Your task to perform on an android device: turn off data saver in the chrome app Image 0: 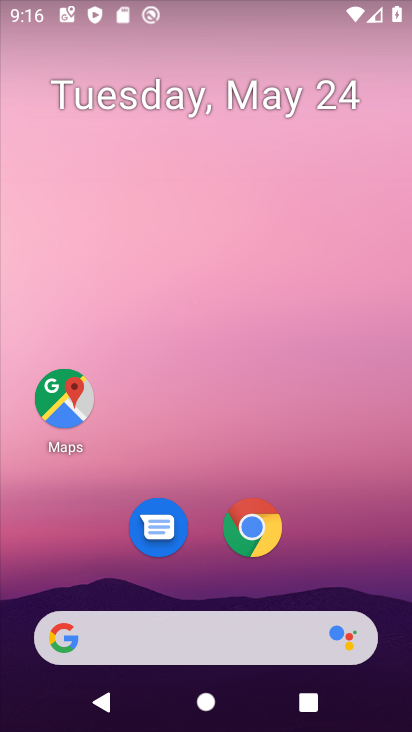
Step 0: click (245, 524)
Your task to perform on an android device: turn off data saver in the chrome app Image 1: 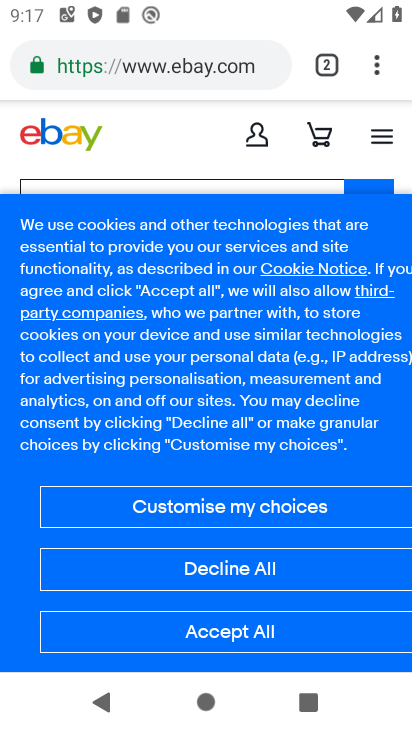
Step 1: click (374, 69)
Your task to perform on an android device: turn off data saver in the chrome app Image 2: 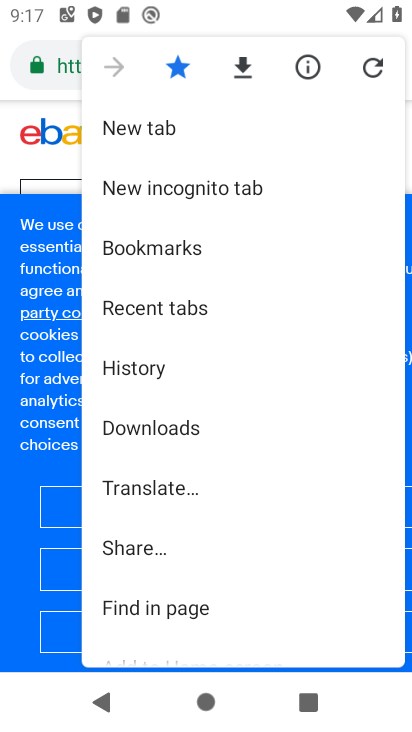
Step 2: drag from (189, 560) to (233, 164)
Your task to perform on an android device: turn off data saver in the chrome app Image 3: 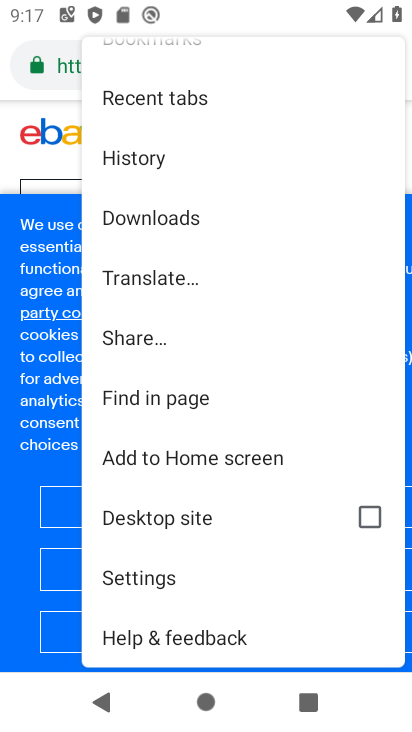
Step 3: click (175, 568)
Your task to perform on an android device: turn off data saver in the chrome app Image 4: 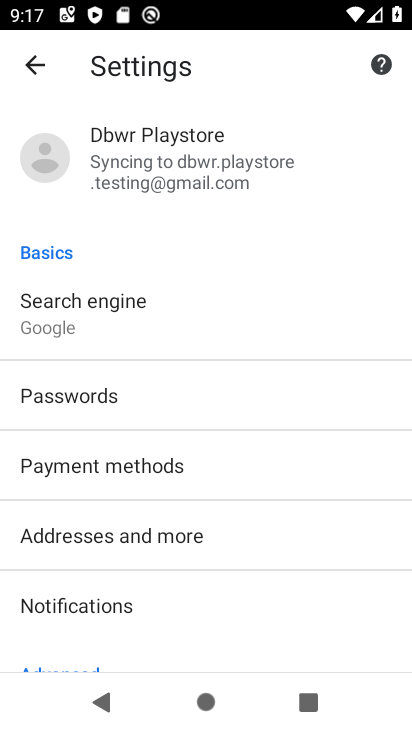
Step 4: drag from (173, 562) to (195, 280)
Your task to perform on an android device: turn off data saver in the chrome app Image 5: 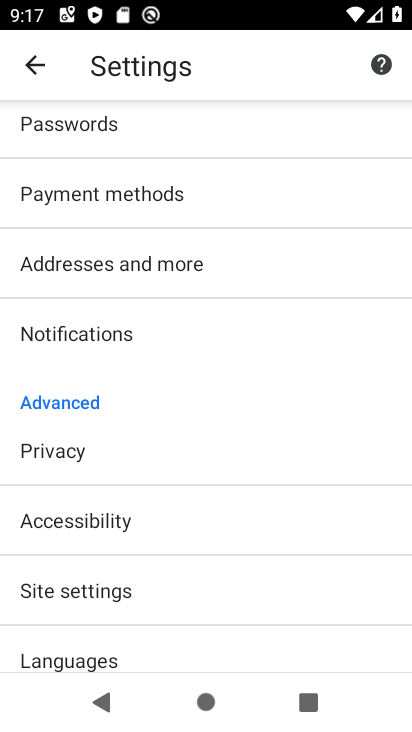
Step 5: drag from (123, 501) to (173, 125)
Your task to perform on an android device: turn off data saver in the chrome app Image 6: 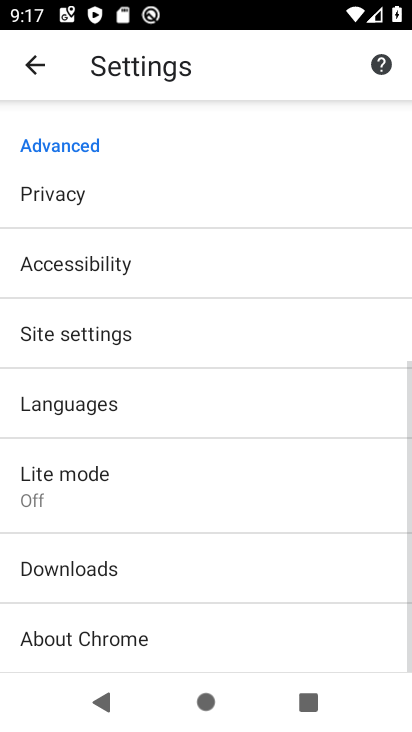
Step 6: click (102, 503)
Your task to perform on an android device: turn off data saver in the chrome app Image 7: 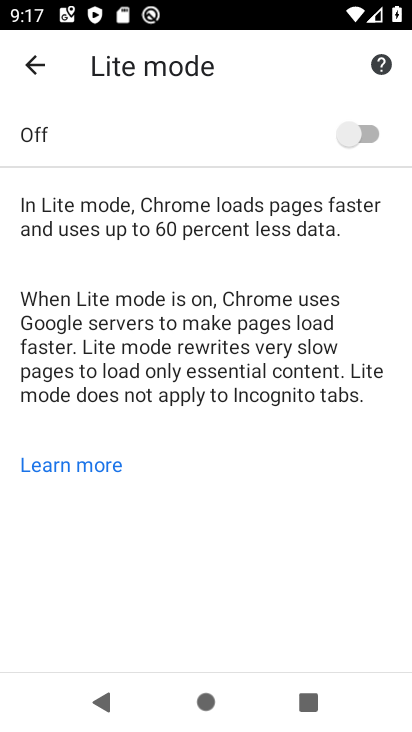
Step 7: task complete